Your task to perform on an android device: Show me the alarms in the clock app Image 0: 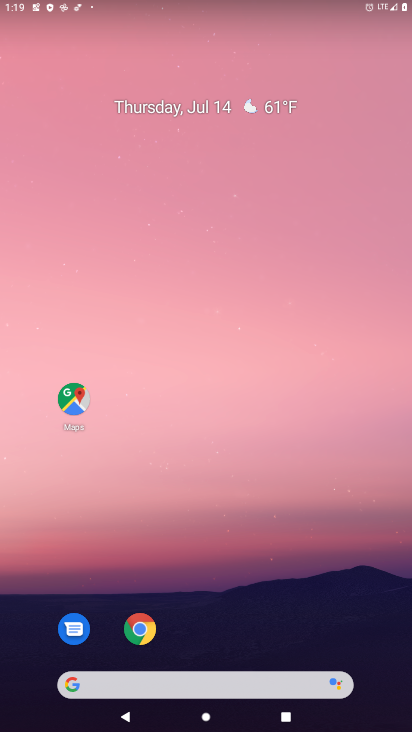
Step 0: drag from (270, 573) to (241, 188)
Your task to perform on an android device: Show me the alarms in the clock app Image 1: 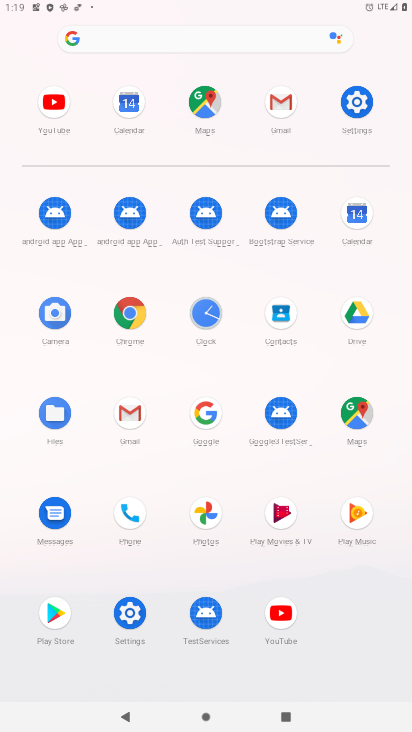
Step 1: click (202, 317)
Your task to perform on an android device: Show me the alarms in the clock app Image 2: 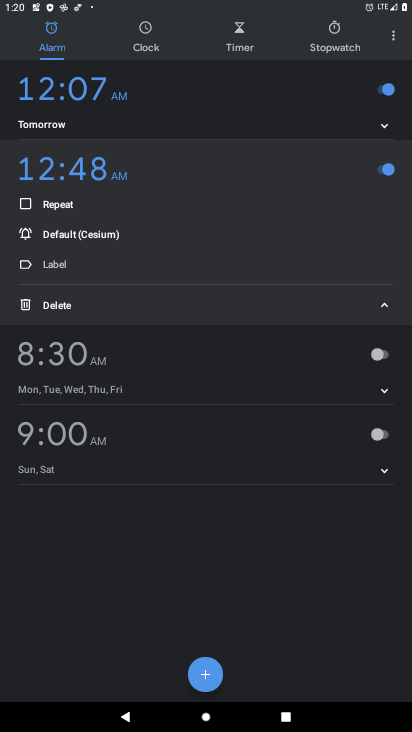
Step 2: task complete